Your task to perform on an android device: set default search engine in the chrome app Image 0: 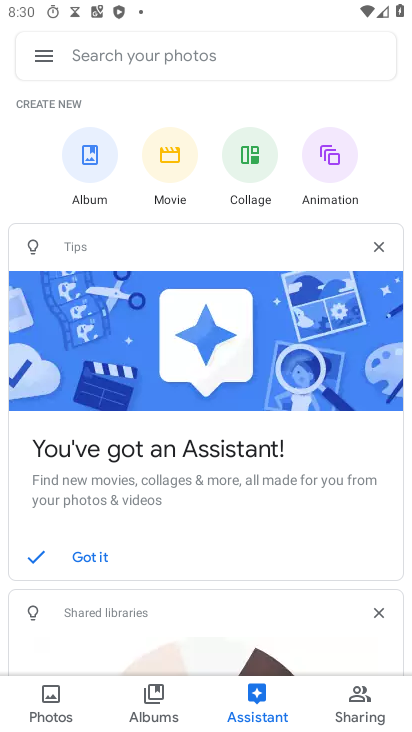
Step 0: press home button
Your task to perform on an android device: set default search engine in the chrome app Image 1: 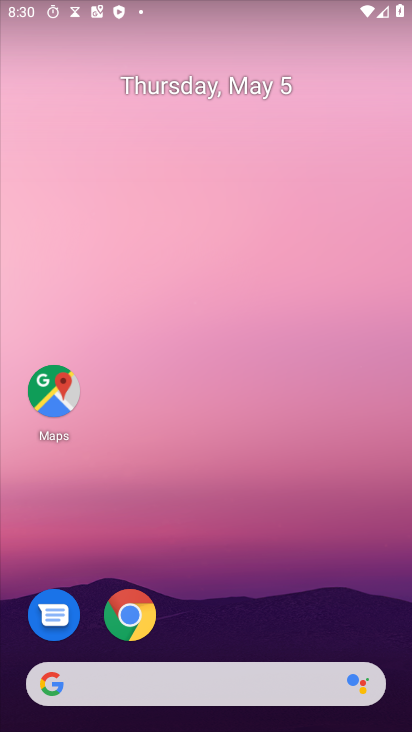
Step 1: click (142, 609)
Your task to perform on an android device: set default search engine in the chrome app Image 2: 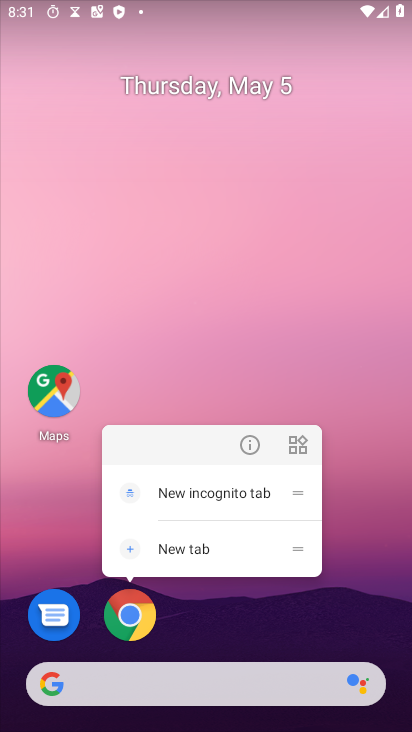
Step 2: click (114, 620)
Your task to perform on an android device: set default search engine in the chrome app Image 3: 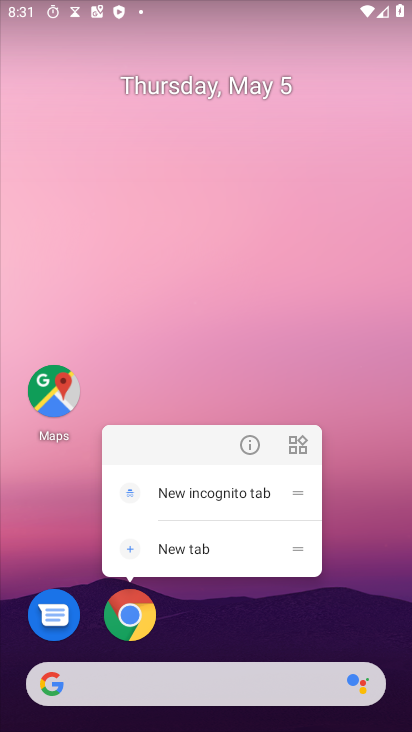
Step 3: click (126, 620)
Your task to perform on an android device: set default search engine in the chrome app Image 4: 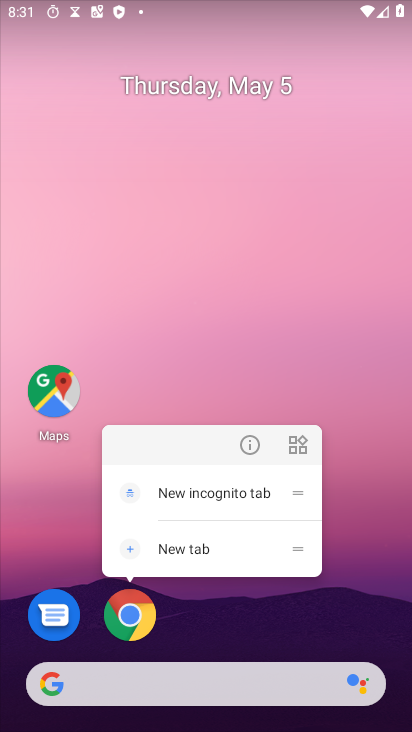
Step 4: click (245, 430)
Your task to perform on an android device: set default search engine in the chrome app Image 5: 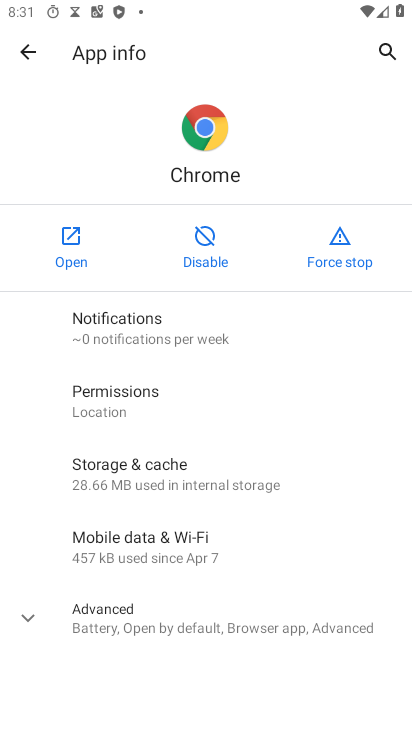
Step 5: click (74, 243)
Your task to perform on an android device: set default search engine in the chrome app Image 6: 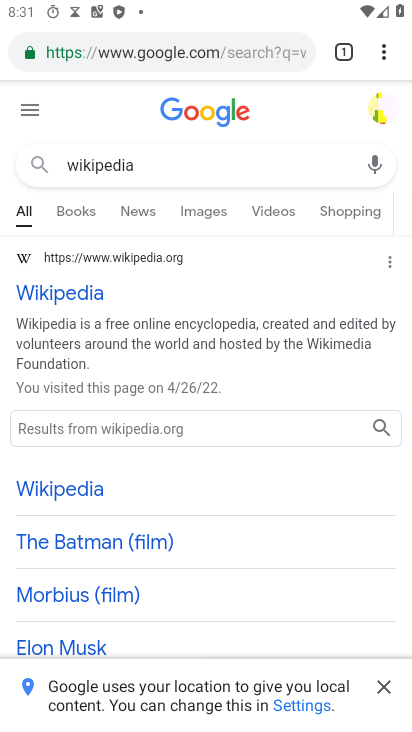
Step 6: click (377, 52)
Your task to perform on an android device: set default search engine in the chrome app Image 7: 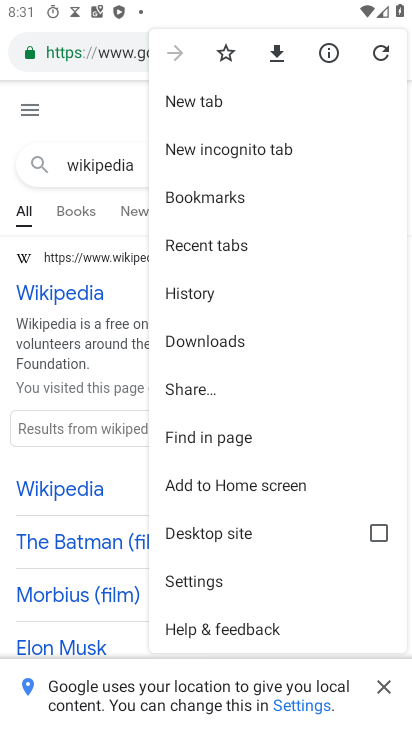
Step 7: click (204, 584)
Your task to perform on an android device: set default search engine in the chrome app Image 8: 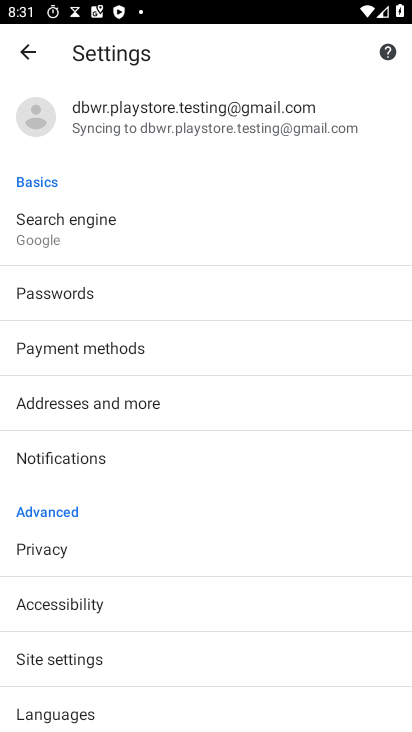
Step 8: click (76, 230)
Your task to perform on an android device: set default search engine in the chrome app Image 9: 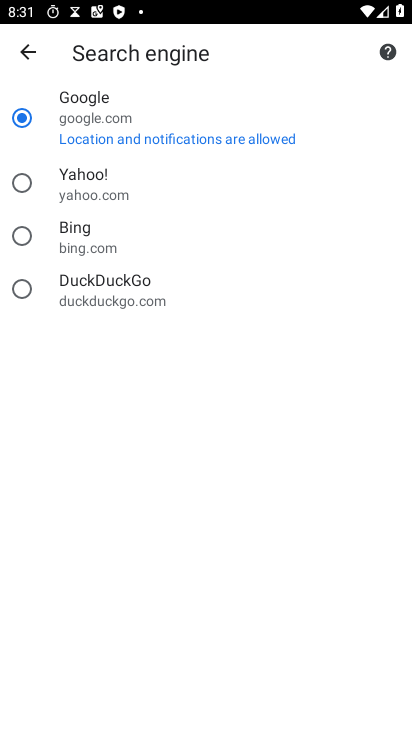
Step 9: task complete